Your task to perform on an android device: Search for Mexican restaurants on Maps Image 0: 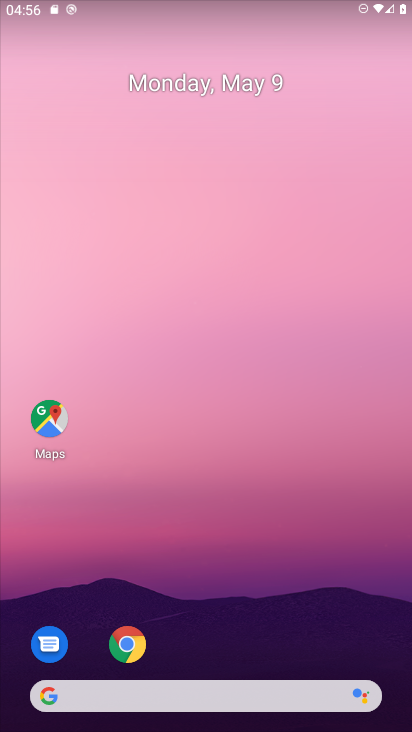
Step 0: click (46, 415)
Your task to perform on an android device: Search for Mexican restaurants on Maps Image 1: 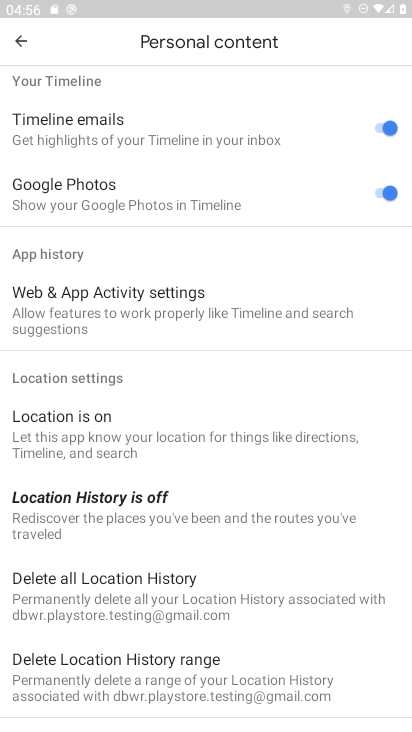
Step 1: press back button
Your task to perform on an android device: Search for Mexican restaurants on Maps Image 2: 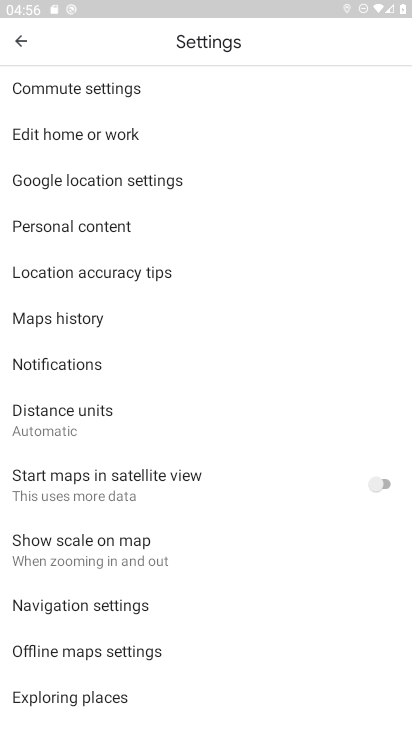
Step 2: press back button
Your task to perform on an android device: Search for Mexican restaurants on Maps Image 3: 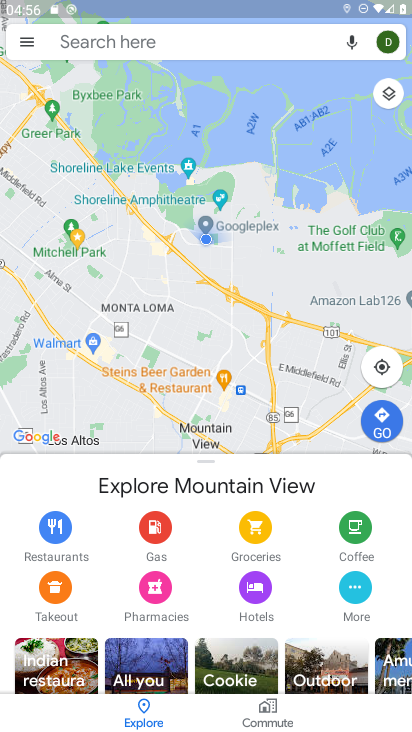
Step 3: click (174, 34)
Your task to perform on an android device: Search for Mexican restaurants on Maps Image 4: 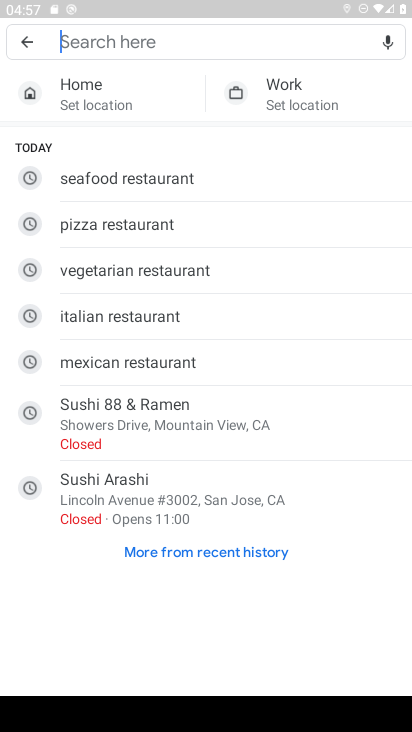
Step 4: type "Mexican restaurants"
Your task to perform on an android device: Search for Mexican restaurants on Maps Image 5: 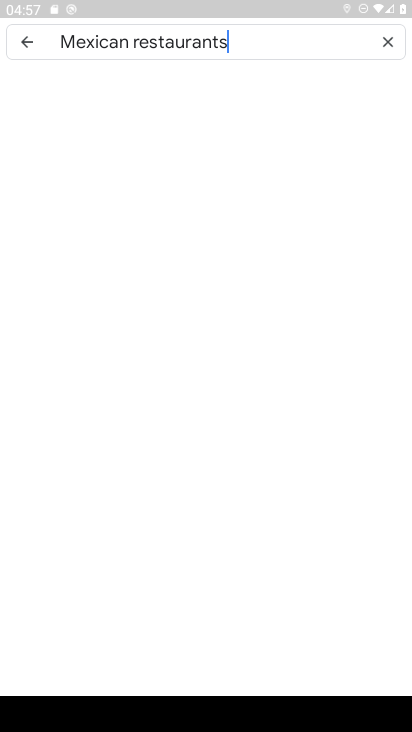
Step 5: type ""
Your task to perform on an android device: Search for Mexican restaurants on Maps Image 6: 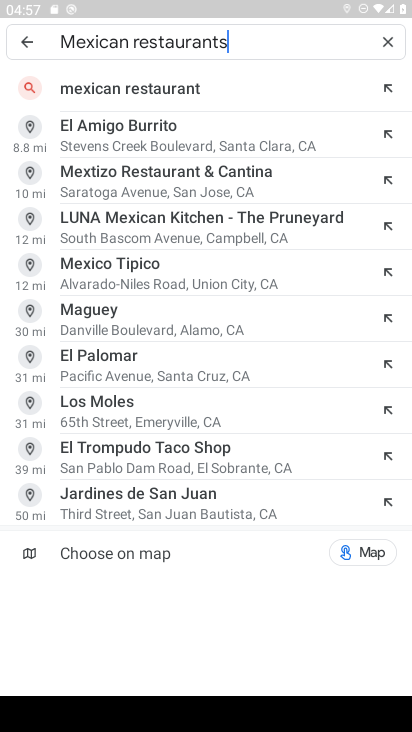
Step 6: click (172, 90)
Your task to perform on an android device: Search for Mexican restaurants on Maps Image 7: 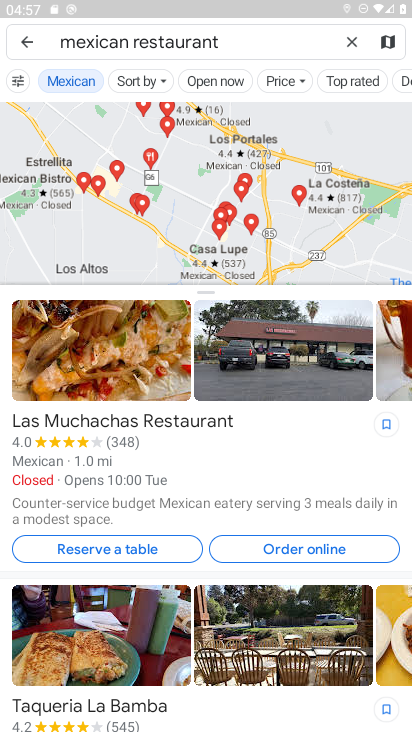
Step 7: task complete